Your task to perform on an android device: Clear the cart on costco. Add "logitech g910" to the cart on costco Image 0: 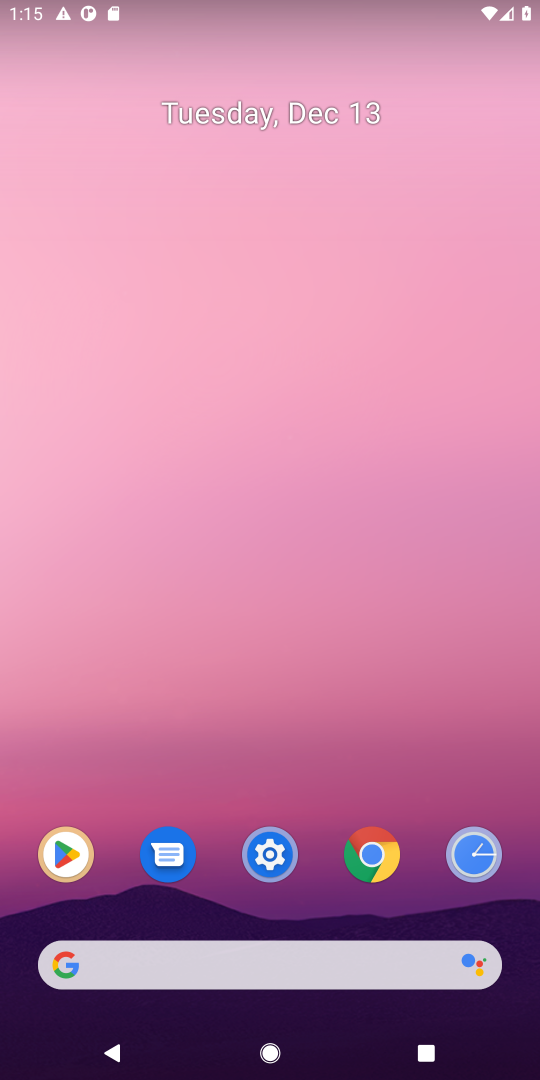
Step 0: click (363, 982)
Your task to perform on an android device: Clear the cart on costco. Add "logitech g910" to the cart on costco Image 1: 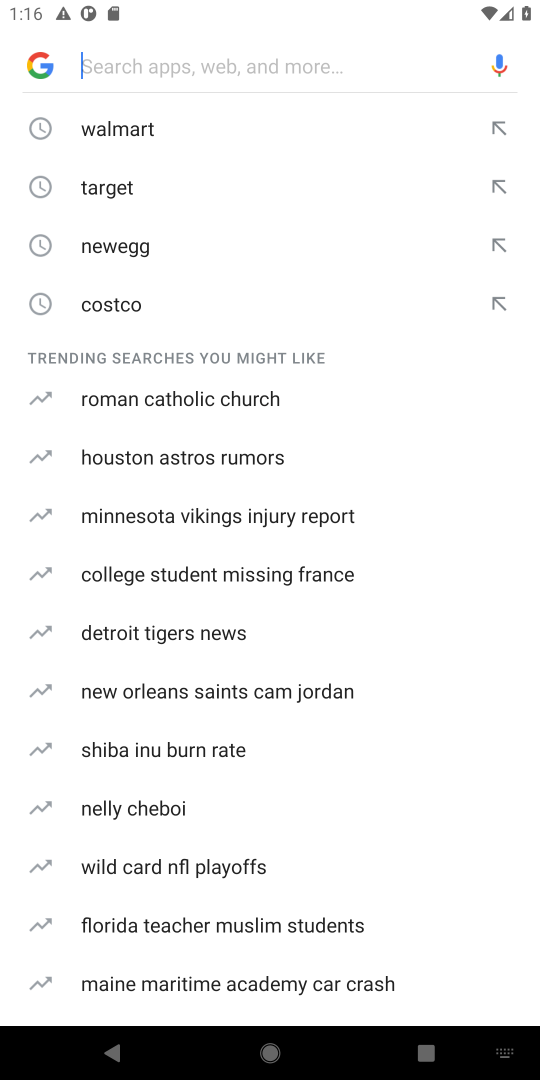
Step 1: click (156, 298)
Your task to perform on an android device: Clear the cart on costco. Add "logitech g910" to the cart on costco Image 2: 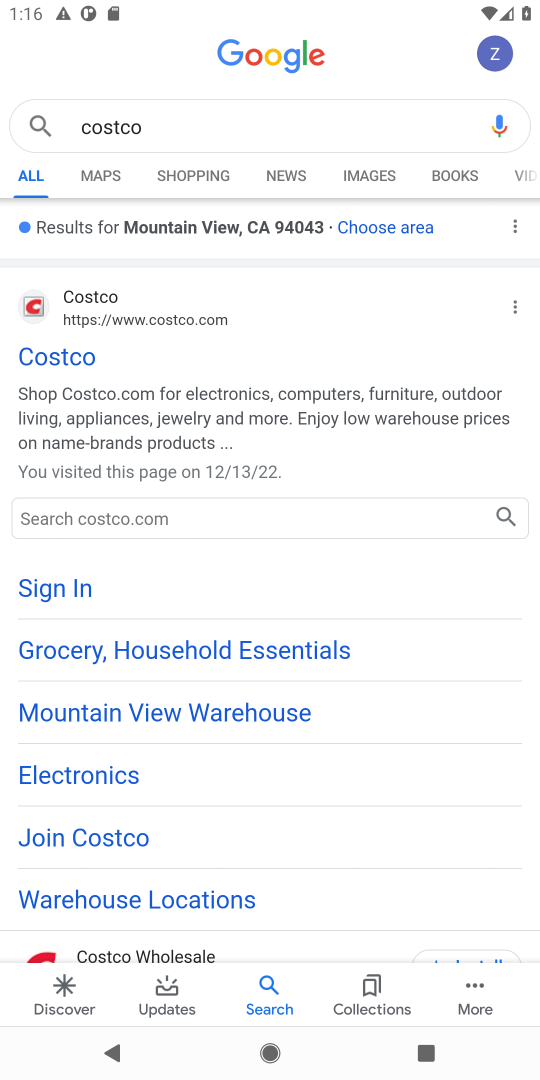
Step 2: click (52, 335)
Your task to perform on an android device: Clear the cart on costco. Add "logitech g910" to the cart on costco Image 3: 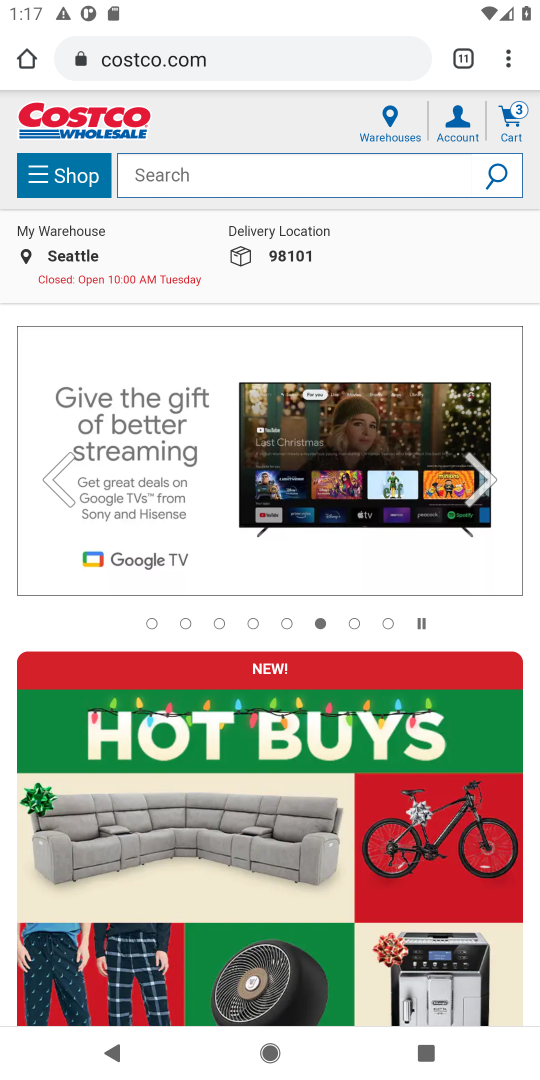
Step 3: click (255, 195)
Your task to perform on an android device: Clear the cart on costco. Add "logitech g910" to the cart on costco Image 4: 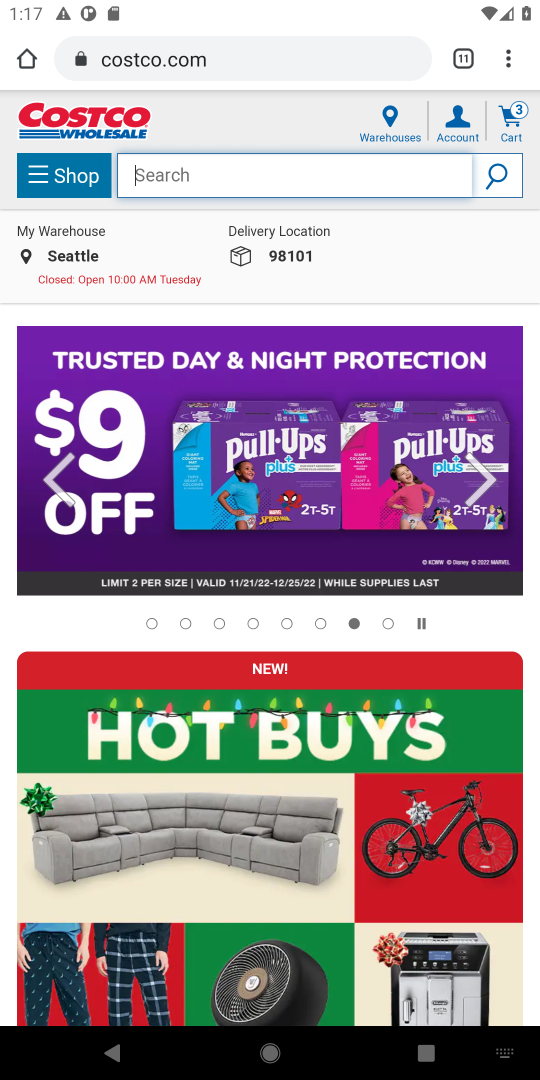
Step 4: type "logitech g910"
Your task to perform on an android device: Clear the cart on costco. Add "logitech g910" to the cart on costco Image 5: 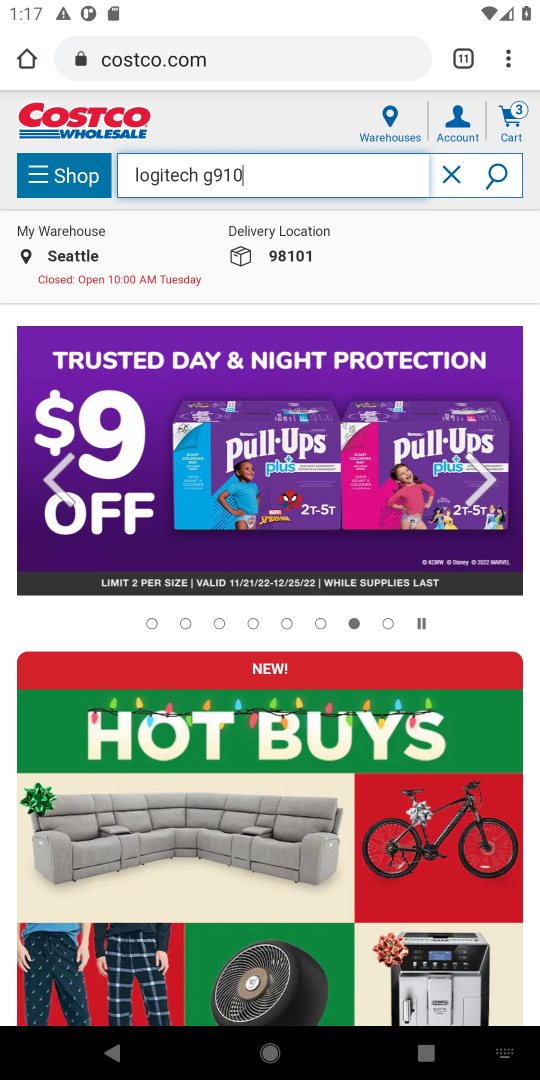
Step 5: click (503, 190)
Your task to perform on an android device: Clear the cart on costco. Add "logitech g910" to the cart on costco Image 6: 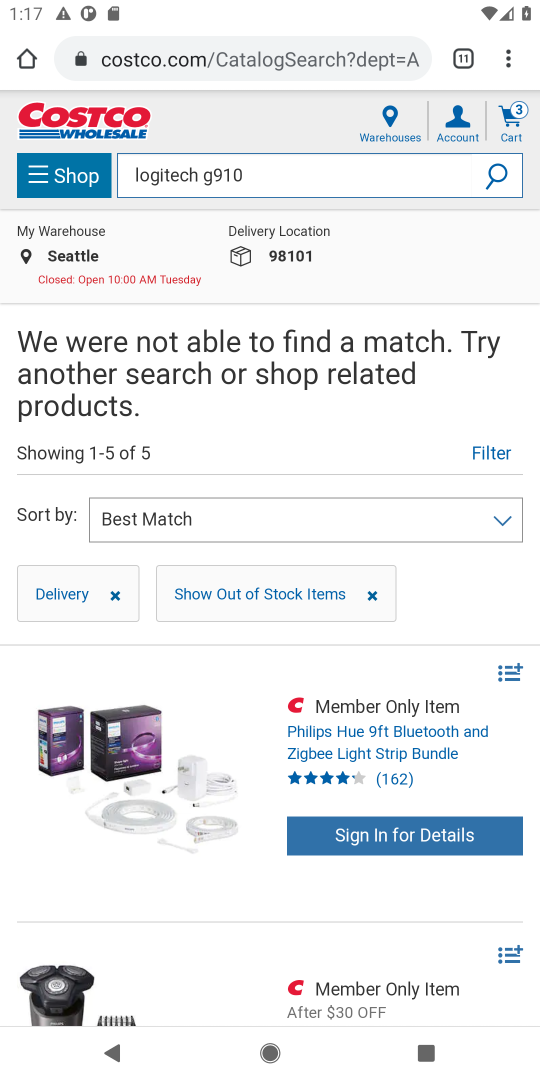
Step 6: task complete